Your task to perform on an android device: open app "Paramount+ | Peak Streaming" Image 0: 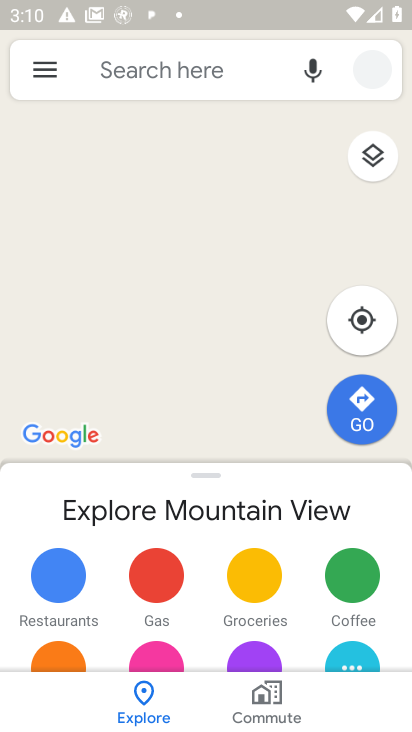
Step 0: press home button
Your task to perform on an android device: open app "Paramount+ | Peak Streaming" Image 1: 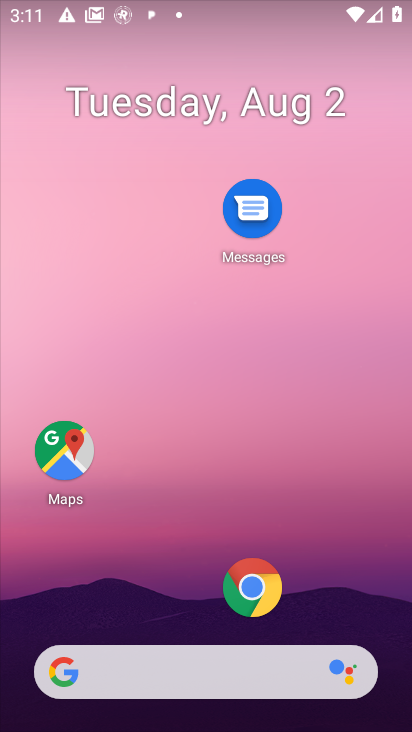
Step 1: drag from (182, 595) to (171, 333)
Your task to perform on an android device: open app "Paramount+ | Peak Streaming" Image 2: 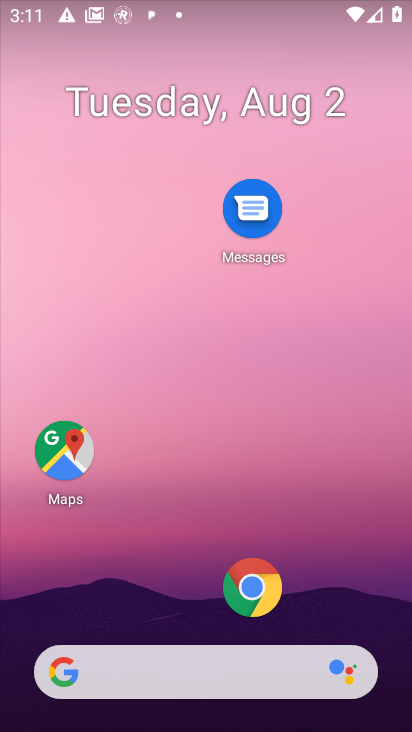
Step 2: drag from (182, 613) to (181, 304)
Your task to perform on an android device: open app "Paramount+ | Peak Streaming" Image 3: 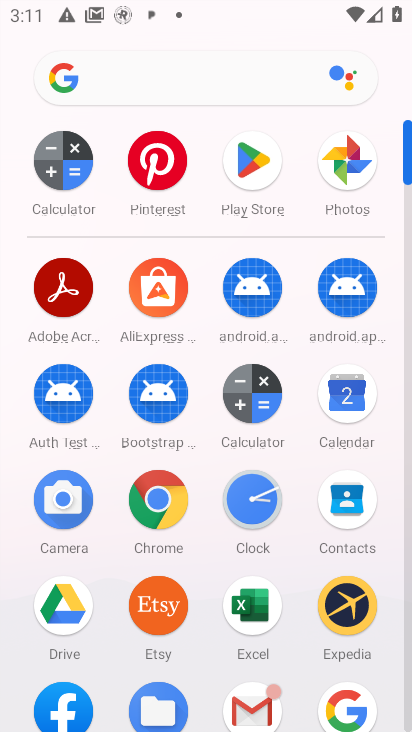
Step 3: click (244, 172)
Your task to perform on an android device: open app "Paramount+ | Peak Streaming" Image 4: 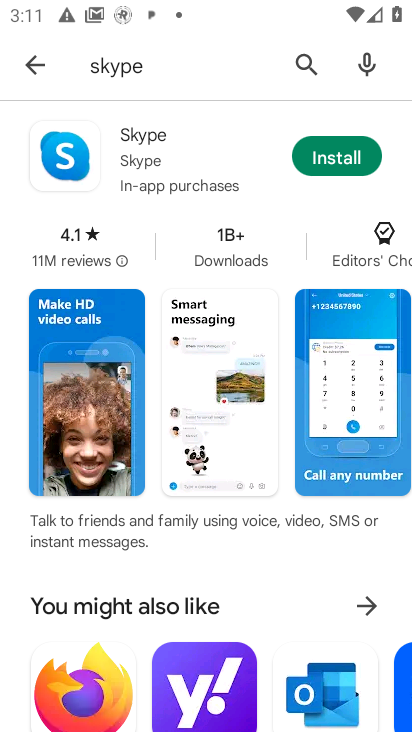
Step 4: click (305, 70)
Your task to perform on an android device: open app "Paramount+ | Peak Streaming" Image 5: 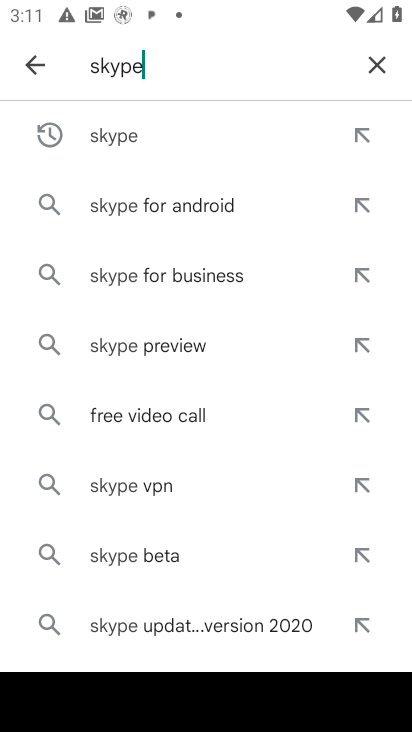
Step 5: click (363, 61)
Your task to perform on an android device: open app "Paramount+ | Peak Streaming" Image 6: 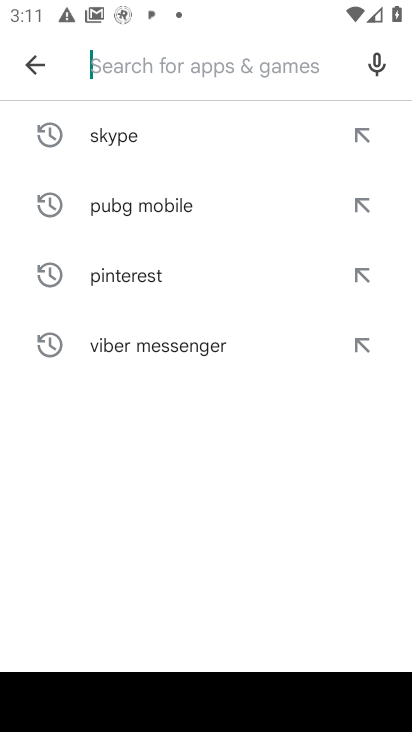
Step 6: type "Paramount+ | Peak Streaming"
Your task to perform on an android device: open app "Paramount+ | Peak Streaming" Image 7: 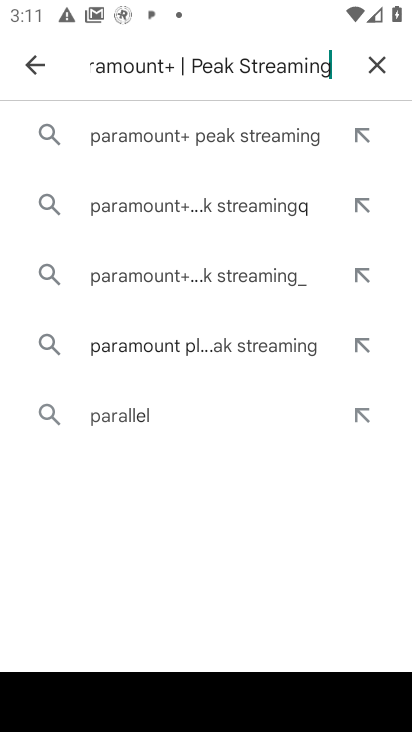
Step 7: type ""
Your task to perform on an android device: open app "Paramount+ | Peak Streaming" Image 8: 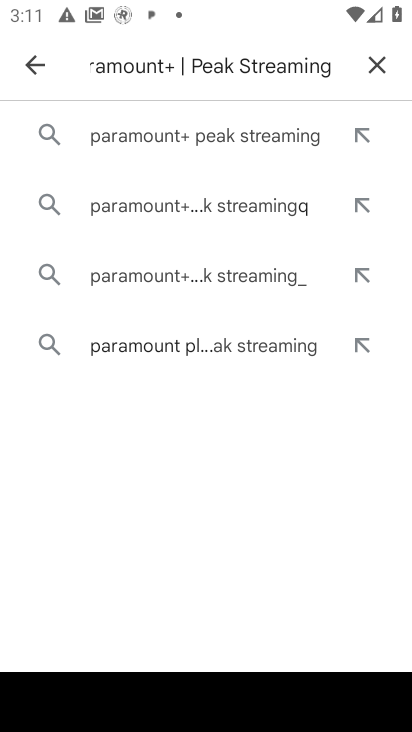
Step 8: click (275, 144)
Your task to perform on an android device: open app "Paramount+ | Peak Streaming" Image 9: 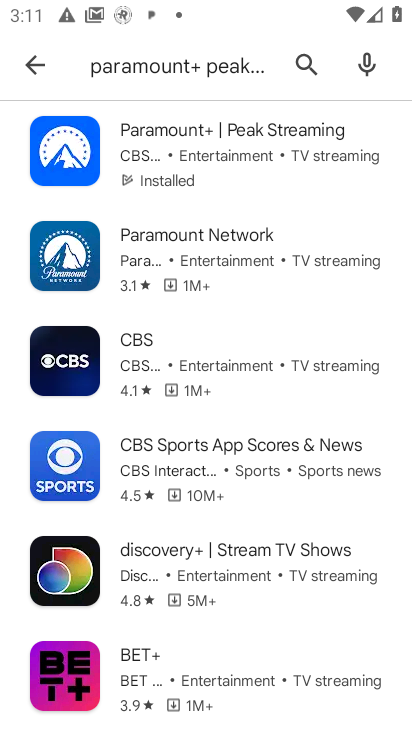
Step 9: click (183, 141)
Your task to perform on an android device: open app "Paramount+ | Peak Streaming" Image 10: 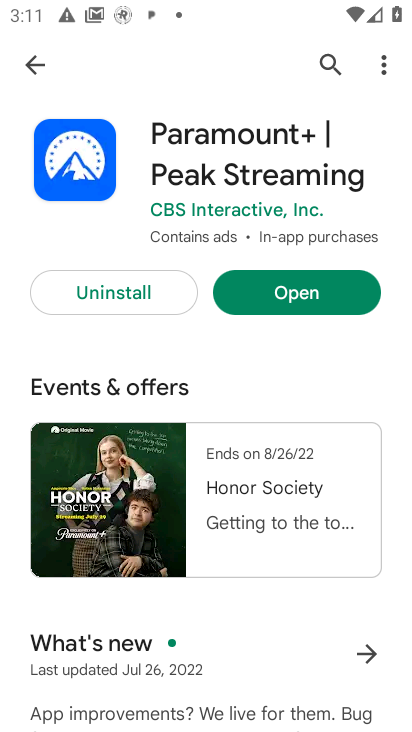
Step 10: click (263, 294)
Your task to perform on an android device: open app "Paramount+ | Peak Streaming" Image 11: 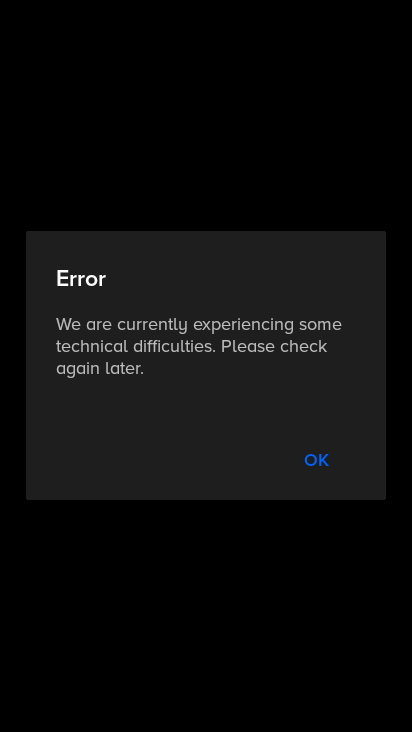
Step 11: task complete